Your task to perform on an android device: See recent photos Image 0: 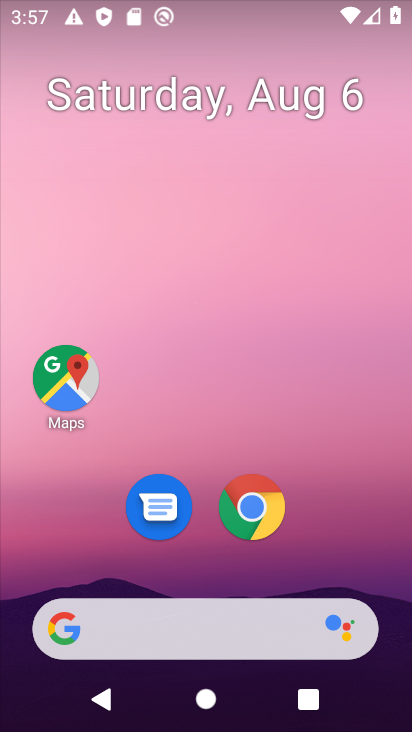
Step 0: drag from (220, 401) to (152, 122)
Your task to perform on an android device: See recent photos Image 1: 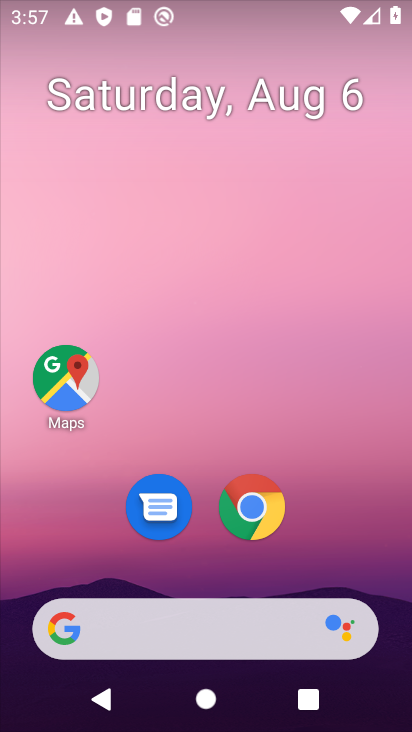
Step 1: drag from (223, 441) to (274, 124)
Your task to perform on an android device: See recent photos Image 2: 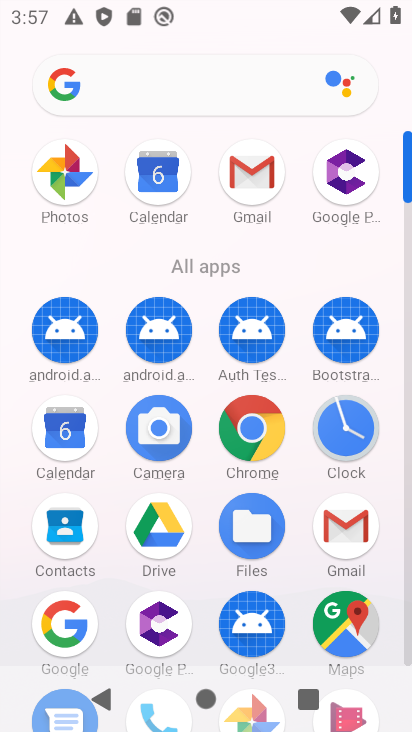
Step 2: drag from (211, 554) to (219, 354)
Your task to perform on an android device: See recent photos Image 3: 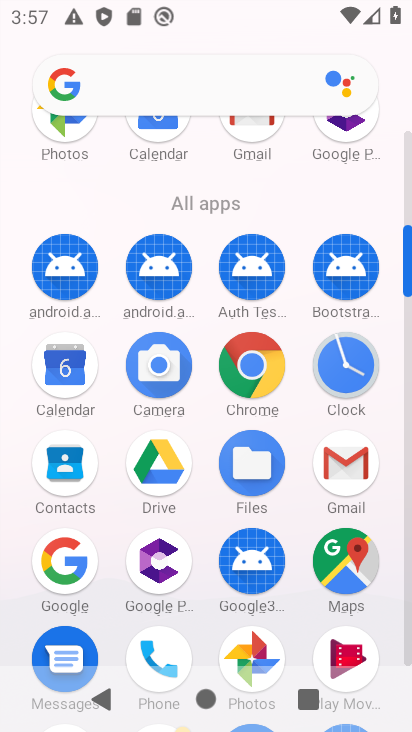
Step 3: drag from (210, 541) to (203, 161)
Your task to perform on an android device: See recent photos Image 4: 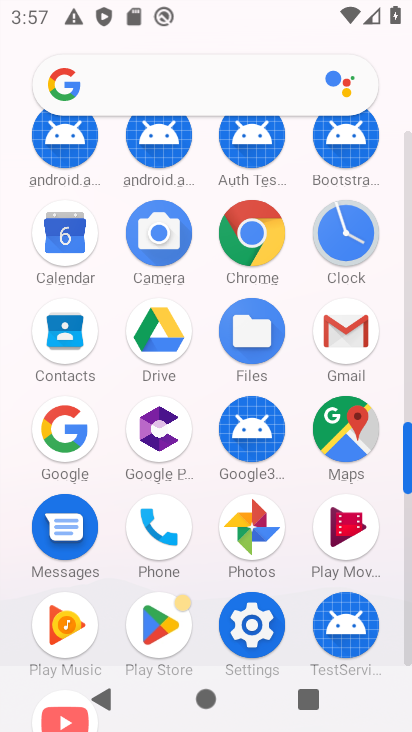
Step 4: click (244, 552)
Your task to perform on an android device: See recent photos Image 5: 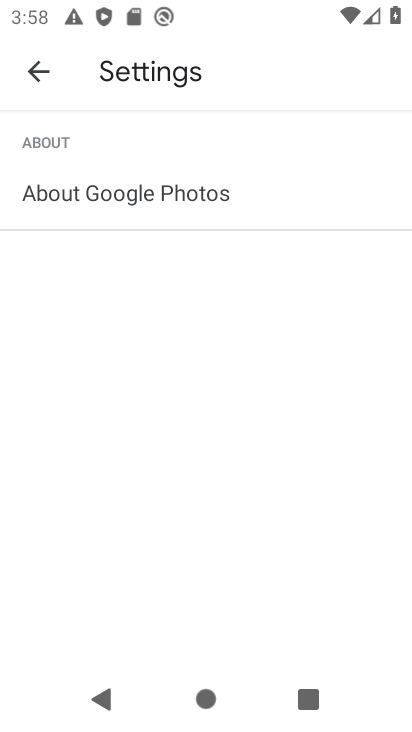
Step 5: press home button
Your task to perform on an android device: See recent photos Image 6: 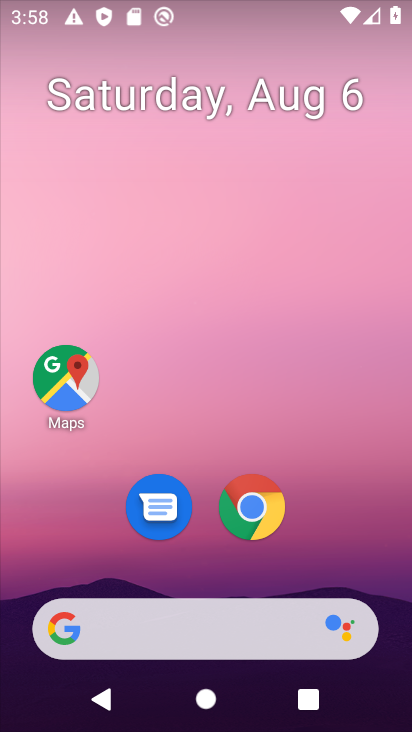
Step 6: drag from (220, 408) to (214, 132)
Your task to perform on an android device: See recent photos Image 7: 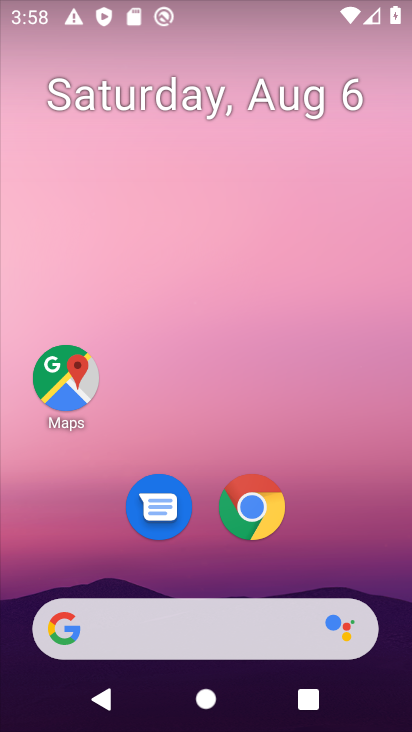
Step 7: drag from (255, 401) to (244, 42)
Your task to perform on an android device: See recent photos Image 8: 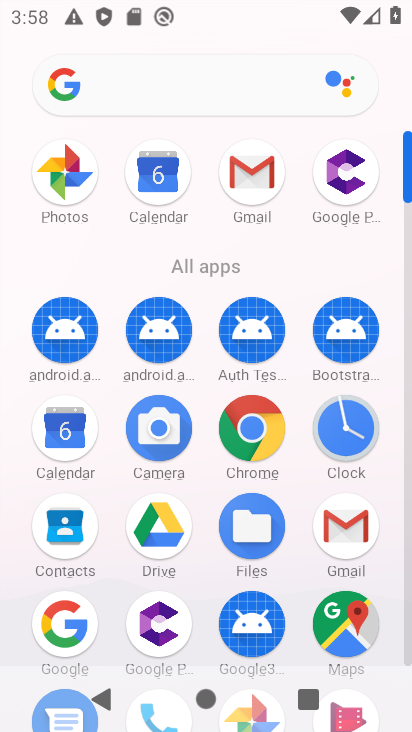
Step 8: click (256, 711)
Your task to perform on an android device: See recent photos Image 9: 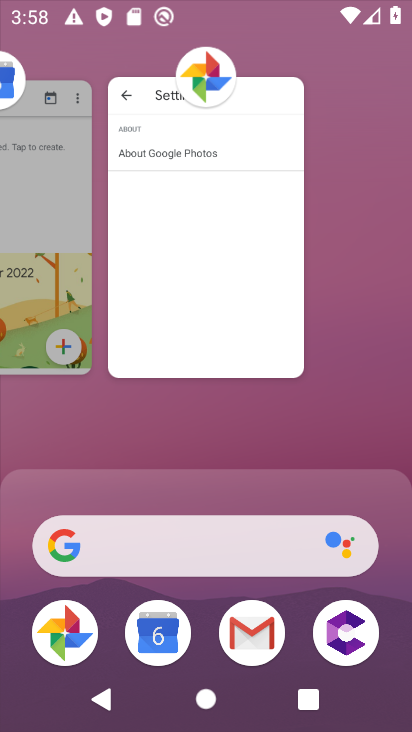
Step 9: drag from (215, 627) to (241, 278)
Your task to perform on an android device: See recent photos Image 10: 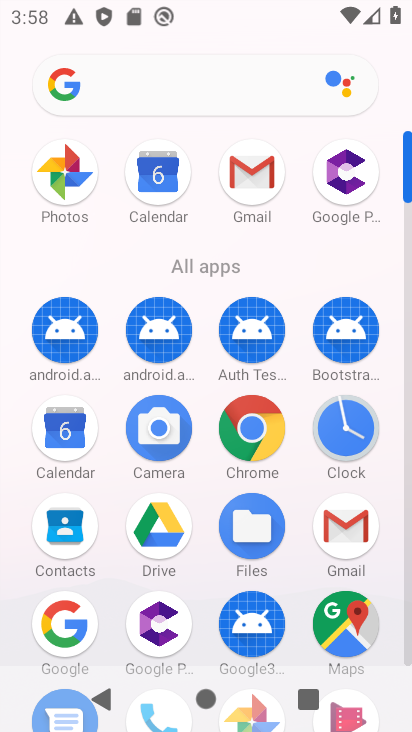
Step 10: drag from (234, 452) to (220, 226)
Your task to perform on an android device: See recent photos Image 11: 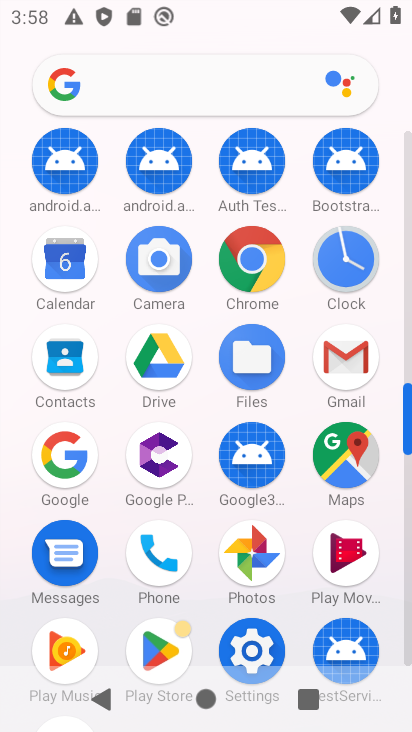
Step 11: click (247, 558)
Your task to perform on an android device: See recent photos Image 12: 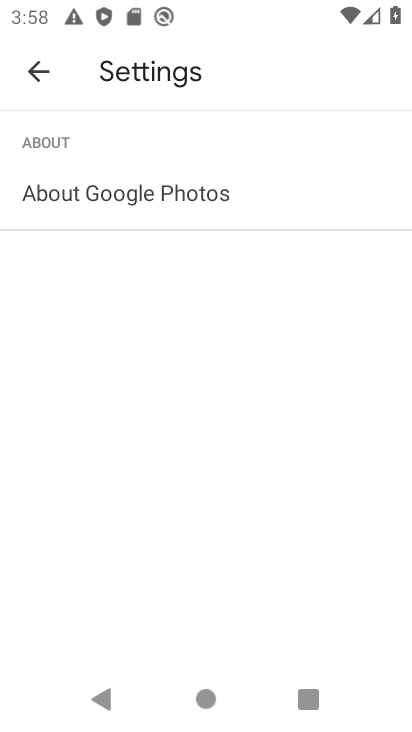
Step 12: task complete